Your task to perform on an android device: toggle javascript in the chrome app Image 0: 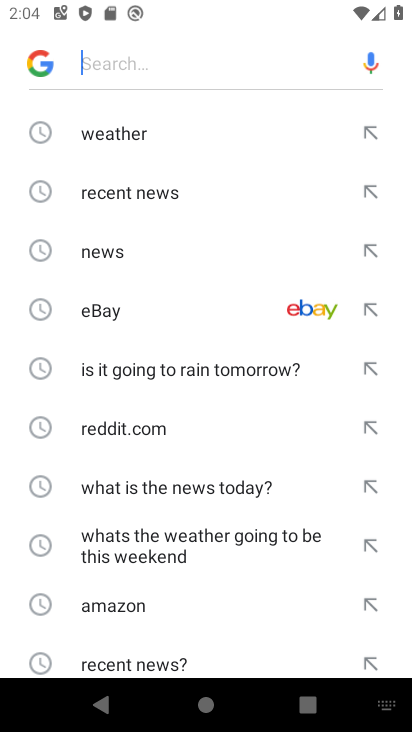
Step 0: press home button
Your task to perform on an android device: toggle javascript in the chrome app Image 1: 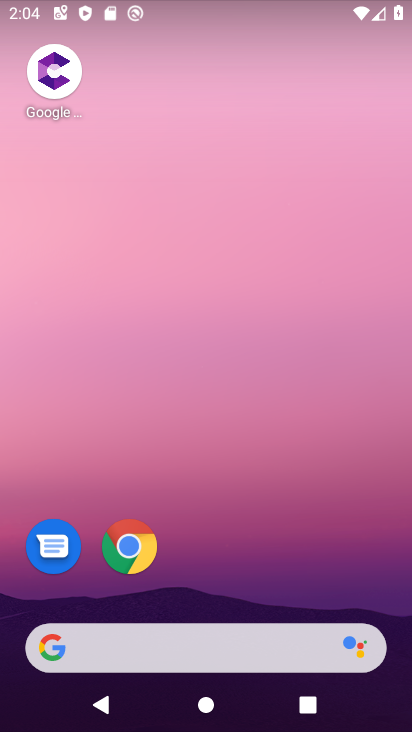
Step 1: drag from (237, 549) to (241, 129)
Your task to perform on an android device: toggle javascript in the chrome app Image 2: 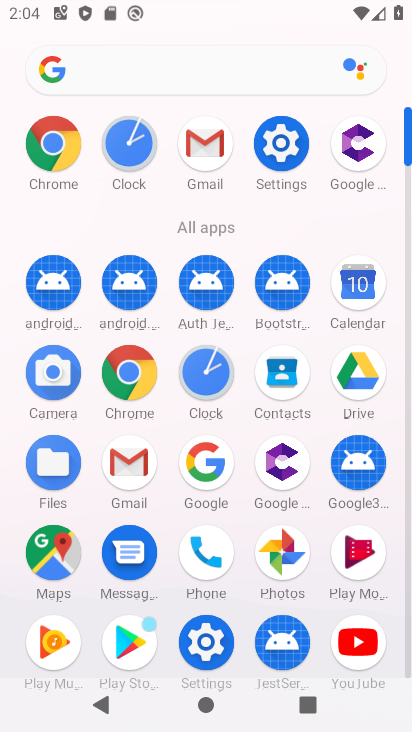
Step 2: click (49, 147)
Your task to perform on an android device: toggle javascript in the chrome app Image 3: 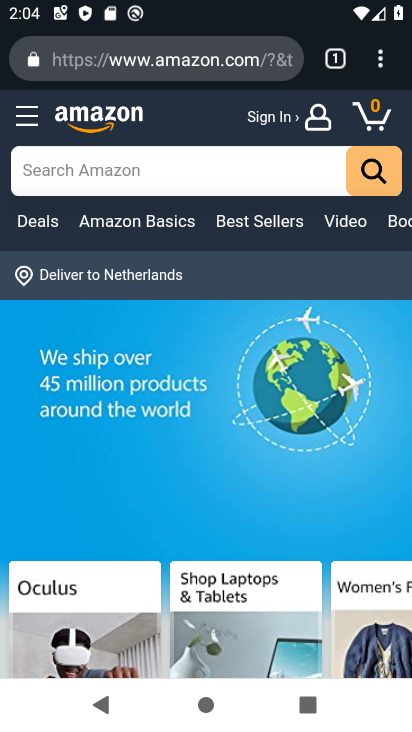
Step 3: drag from (381, 63) to (173, 568)
Your task to perform on an android device: toggle javascript in the chrome app Image 4: 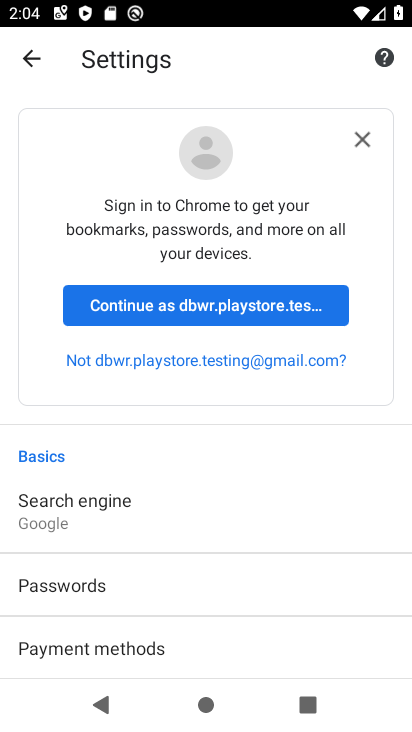
Step 4: drag from (180, 605) to (184, 310)
Your task to perform on an android device: toggle javascript in the chrome app Image 5: 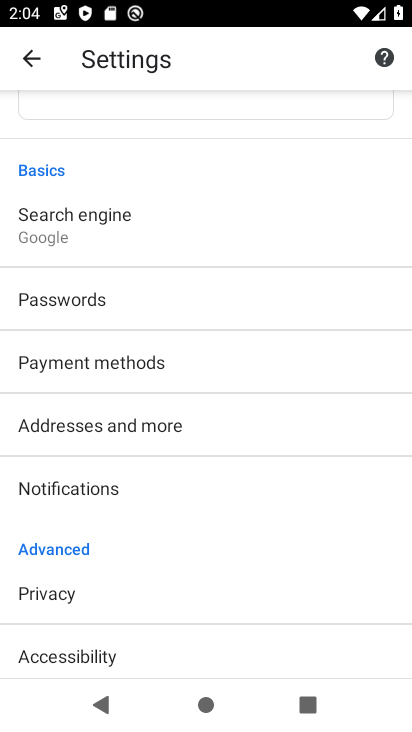
Step 5: drag from (121, 549) to (134, 174)
Your task to perform on an android device: toggle javascript in the chrome app Image 6: 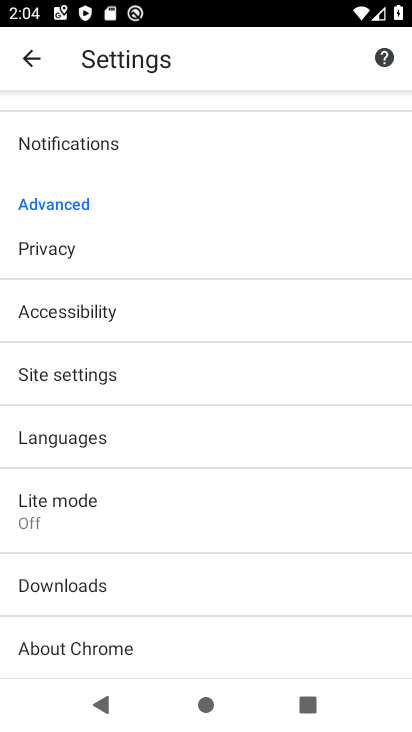
Step 6: click (58, 382)
Your task to perform on an android device: toggle javascript in the chrome app Image 7: 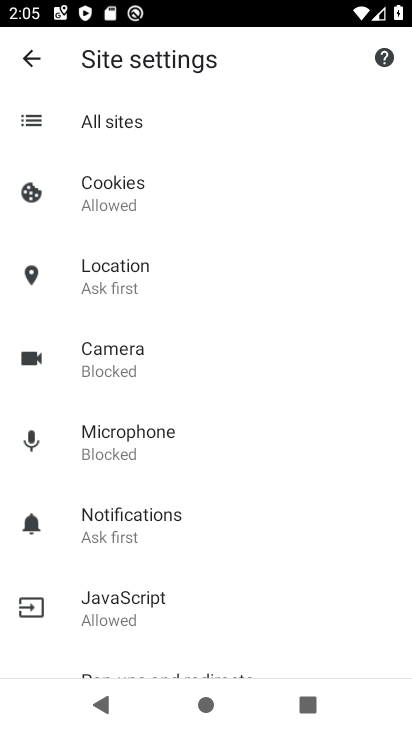
Step 7: drag from (121, 525) to (173, 259)
Your task to perform on an android device: toggle javascript in the chrome app Image 8: 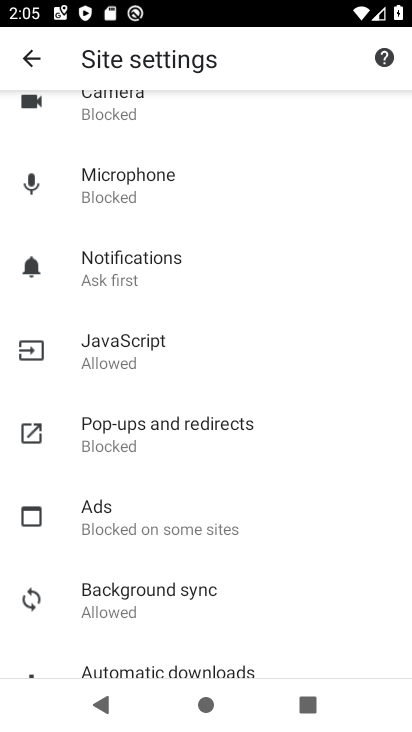
Step 8: click (141, 359)
Your task to perform on an android device: toggle javascript in the chrome app Image 9: 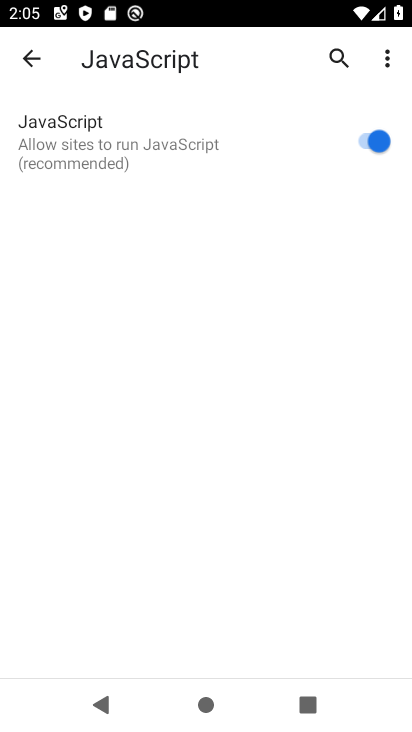
Step 9: click (376, 140)
Your task to perform on an android device: toggle javascript in the chrome app Image 10: 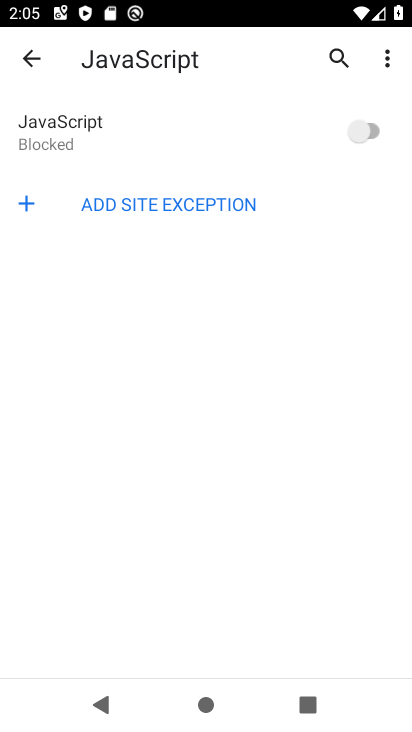
Step 10: task complete